Your task to perform on an android device: set the stopwatch Image 0: 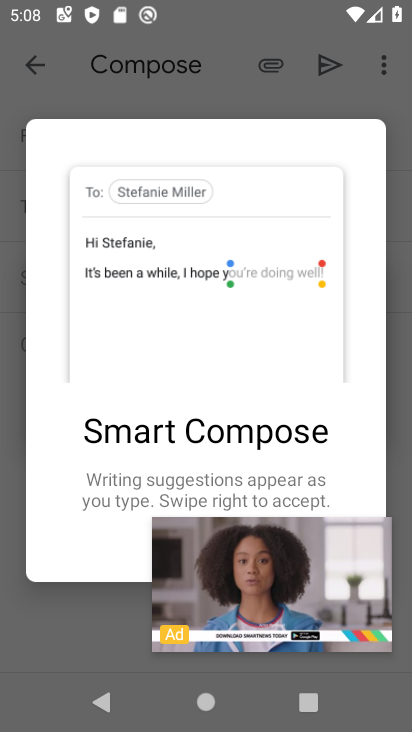
Step 0: press home button
Your task to perform on an android device: set the stopwatch Image 1: 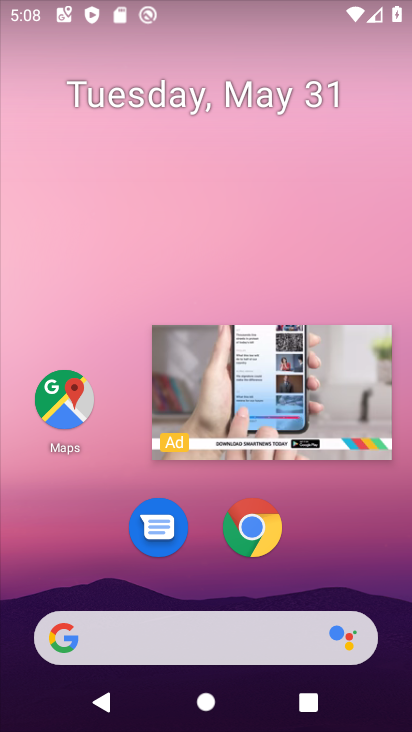
Step 1: click (348, 374)
Your task to perform on an android device: set the stopwatch Image 2: 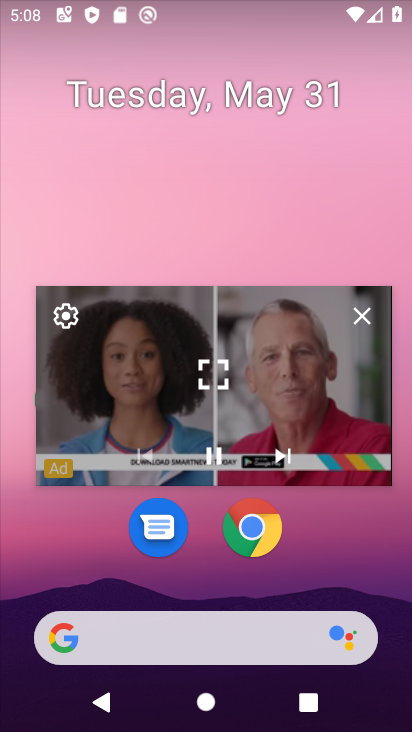
Step 2: click (356, 310)
Your task to perform on an android device: set the stopwatch Image 3: 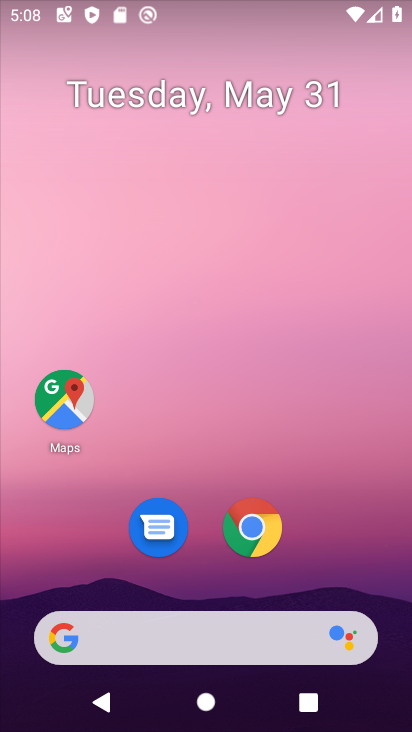
Step 3: drag from (295, 539) to (336, 108)
Your task to perform on an android device: set the stopwatch Image 4: 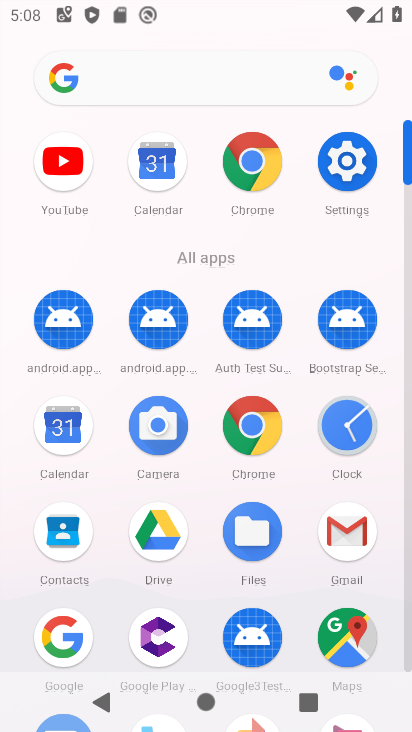
Step 4: click (333, 415)
Your task to perform on an android device: set the stopwatch Image 5: 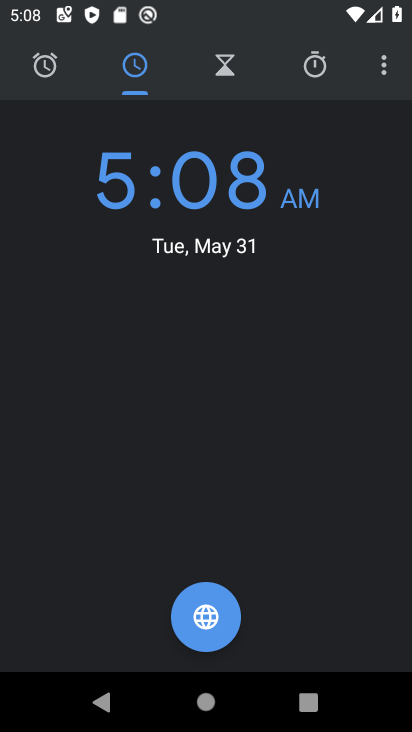
Step 5: click (306, 73)
Your task to perform on an android device: set the stopwatch Image 6: 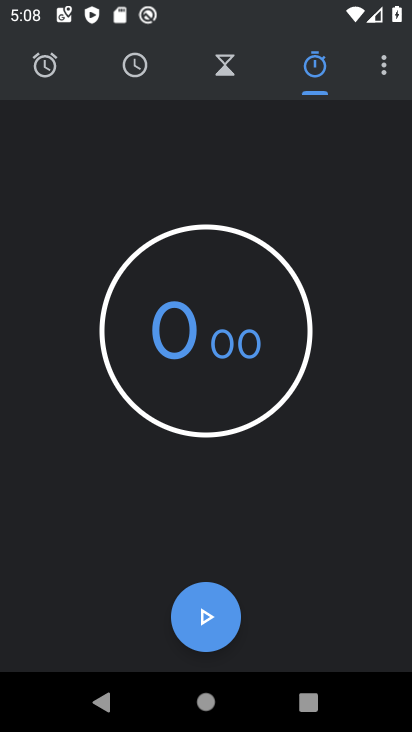
Step 6: click (212, 617)
Your task to perform on an android device: set the stopwatch Image 7: 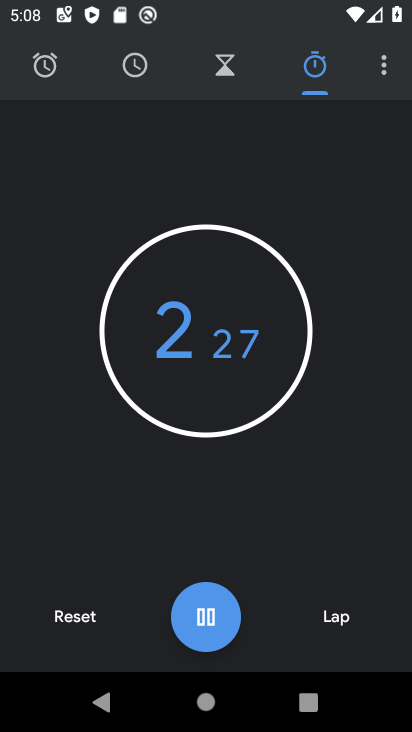
Step 7: task complete